Your task to perform on an android device: change notification settings in the gmail app Image 0: 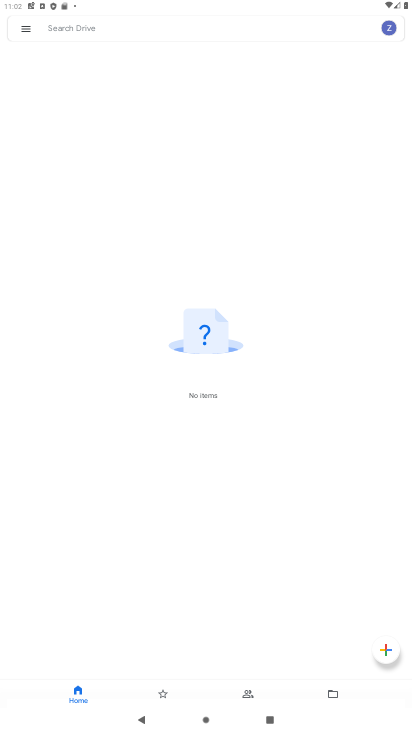
Step 0: press home button
Your task to perform on an android device: change notification settings in the gmail app Image 1: 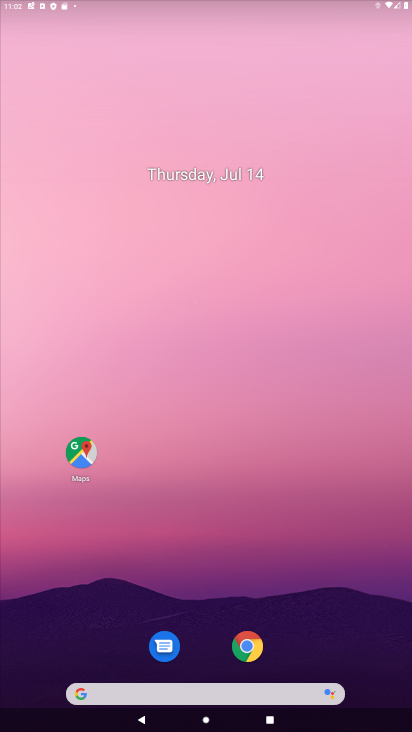
Step 1: drag from (194, 622) to (241, 245)
Your task to perform on an android device: change notification settings in the gmail app Image 2: 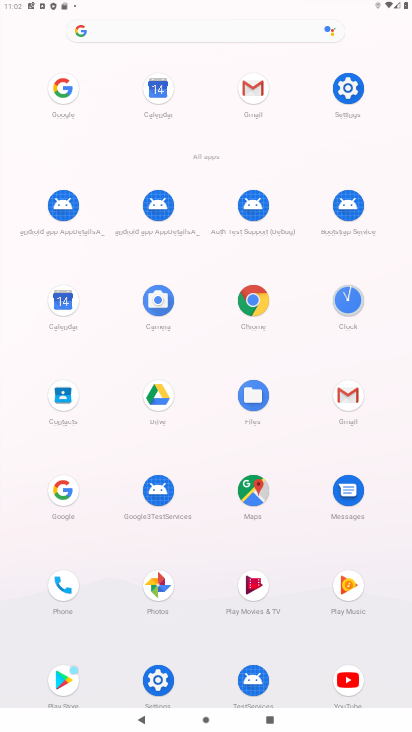
Step 2: click (250, 103)
Your task to perform on an android device: change notification settings in the gmail app Image 3: 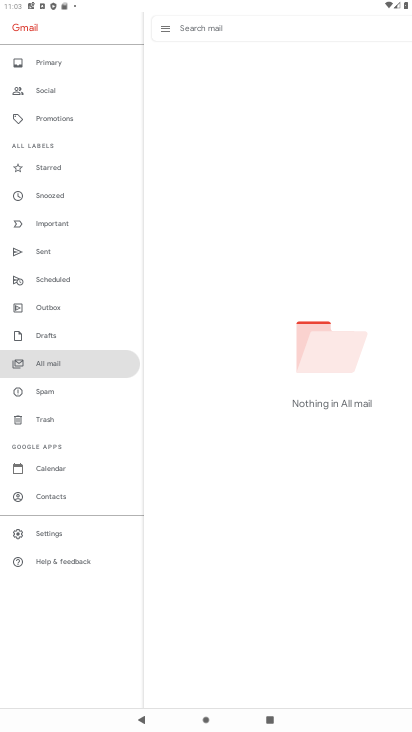
Step 3: click (32, 534)
Your task to perform on an android device: change notification settings in the gmail app Image 4: 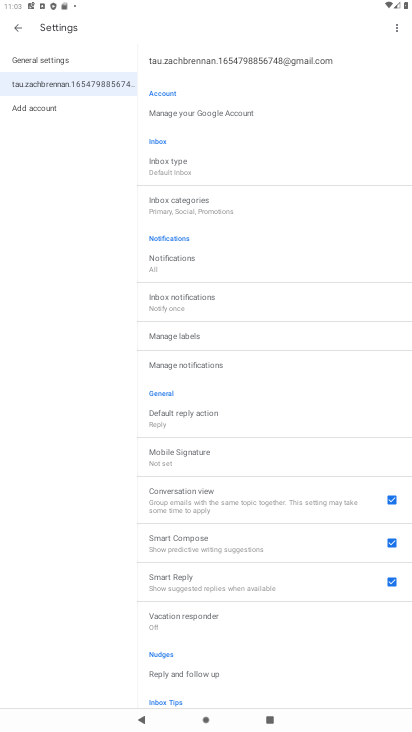
Step 4: click (182, 364)
Your task to perform on an android device: change notification settings in the gmail app Image 5: 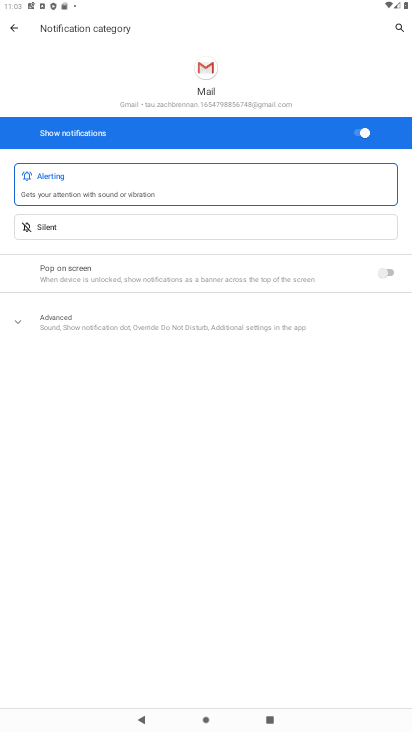
Step 5: click (358, 119)
Your task to perform on an android device: change notification settings in the gmail app Image 6: 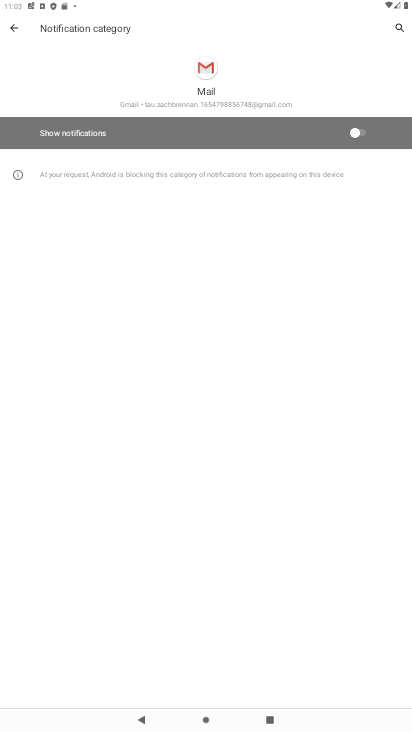
Step 6: task complete